Your task to perform on an android device: Open Yahoo.com Image 0: 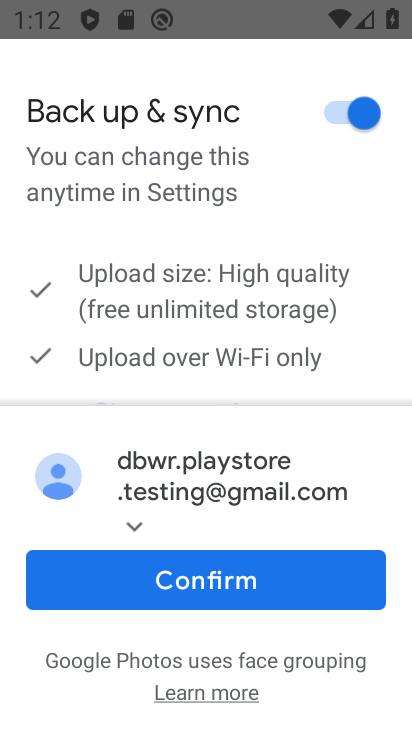
Step 0: press home button
Your task to perform on an android device: Open Yahoo.com Image 1: 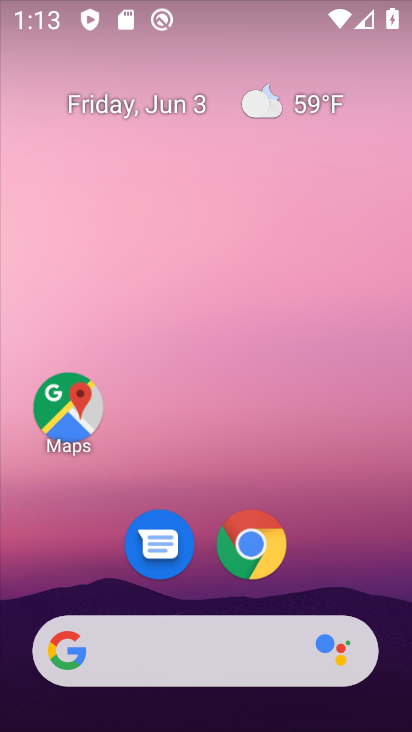
Step 1: drag from (198, 604) to (7, 3)
Your task to perform on an android device: Open Yahoo.com Image 2: 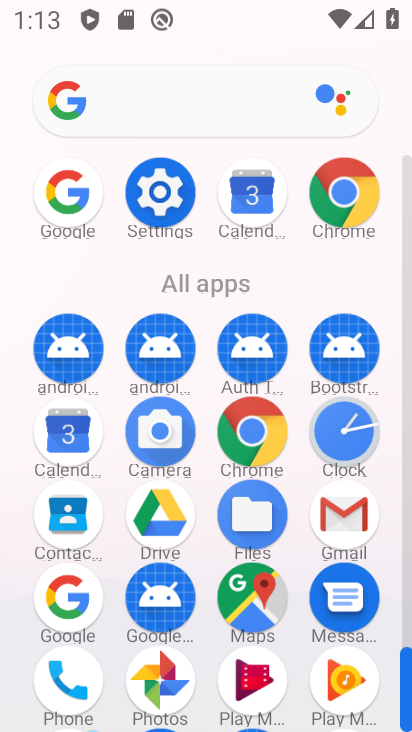
Step 2: click (221, 421)
Your task to perform on an android device: Open Yahoo.com Image 3: 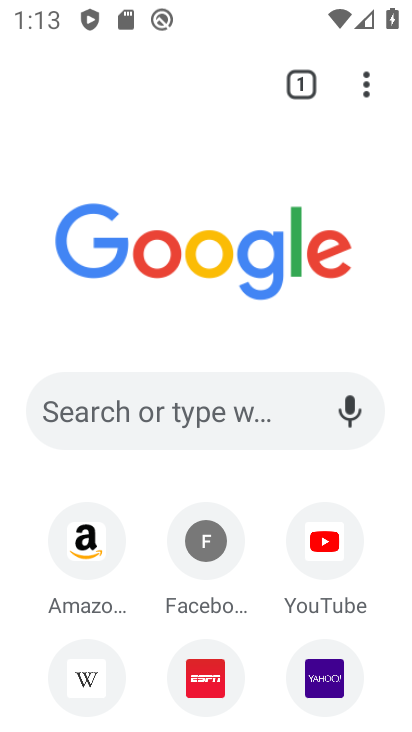
Step 3: click (314, 674)
Your task to perform on an android device: Open Yahoo.com Image 4: 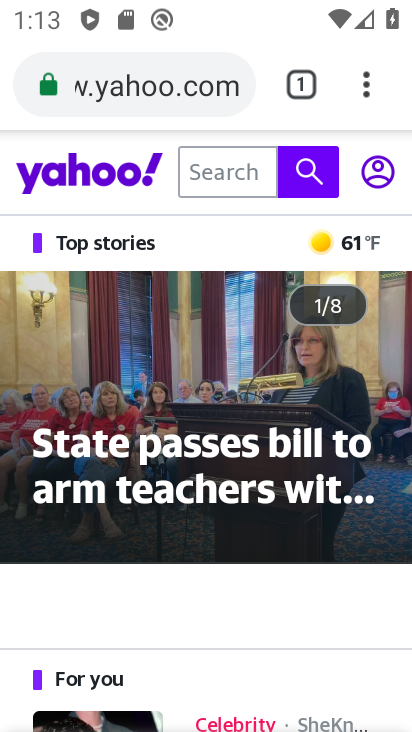
Step 4: task complete